Your task to perform on an android device: Toggle the flashlight Image 0: 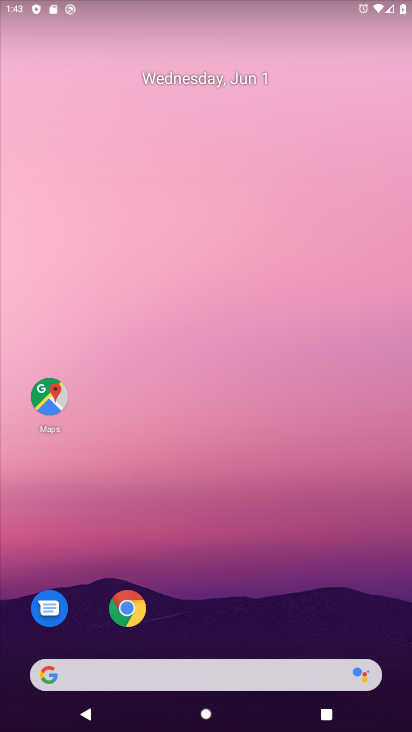
Step 0: drag from (350, 10) to (317, 438)
Your task to perform on an android device: Toggle the flashlight Image 1: 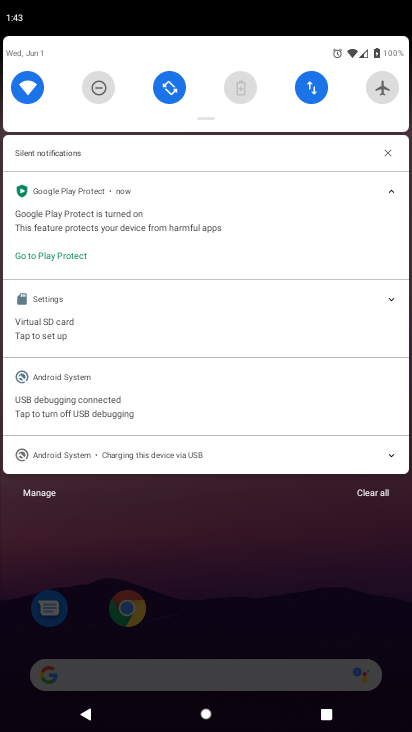
Step 1: task complete